Your task to perform on an android device: Go to eBay Image 0: 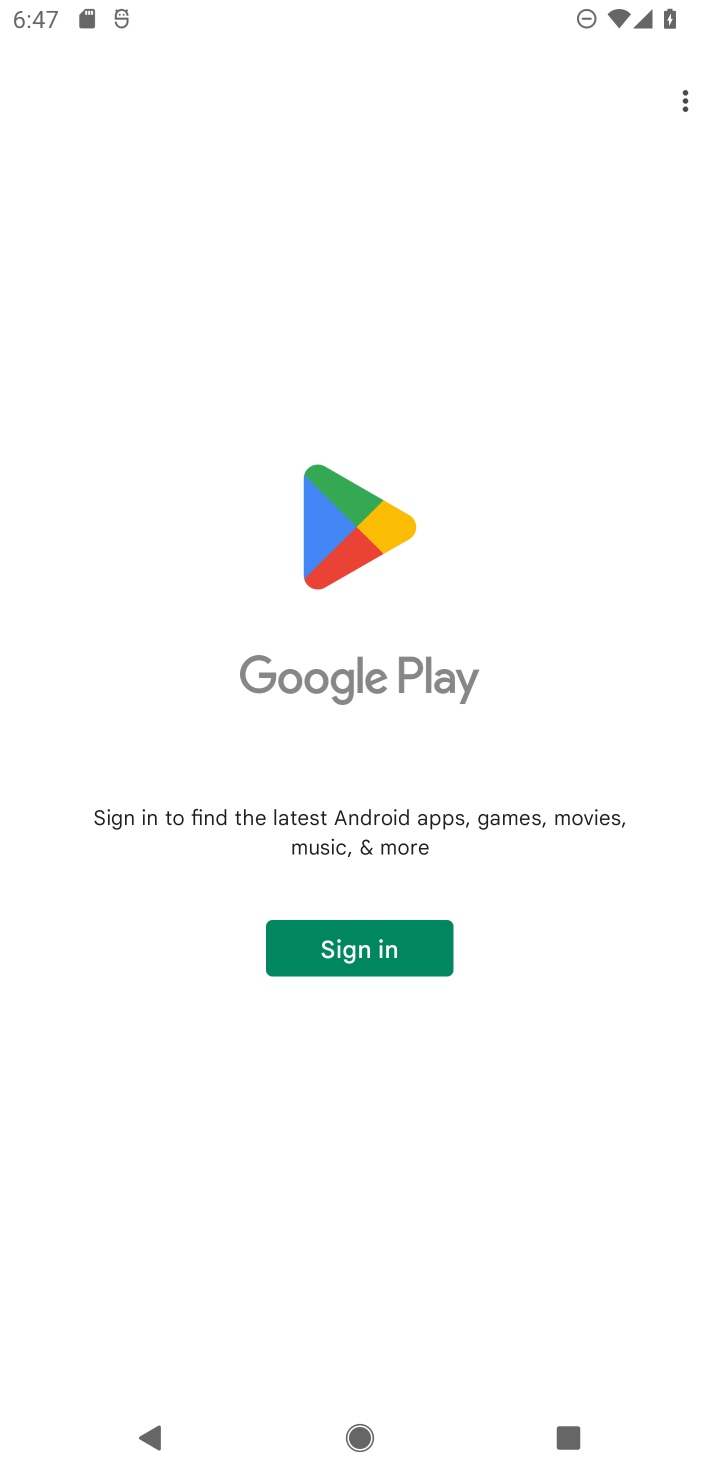
Step 0: press home button
Your task to perform on an android device: Go to eBay Image 1: 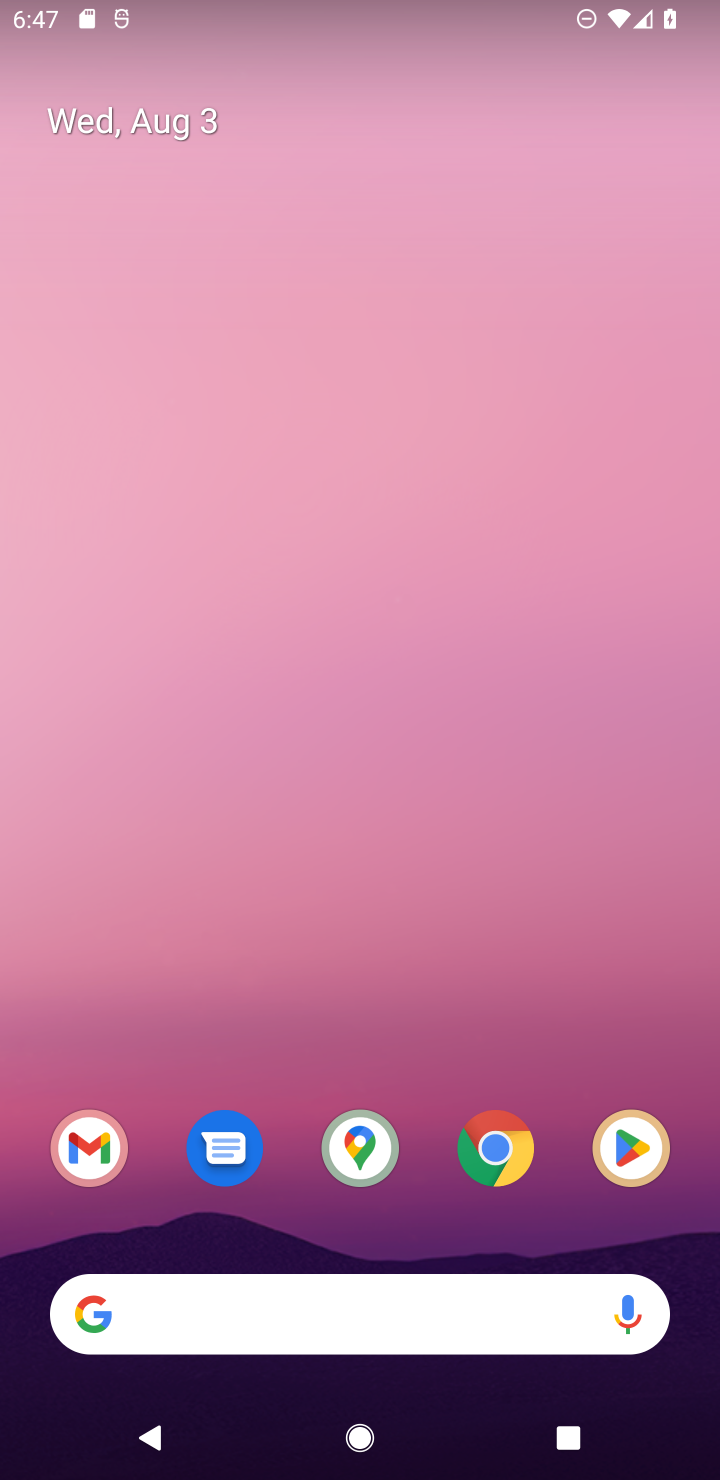
Step 1: drag from (287, 1041) to (305, 528)
Your task to perform on an android device: Go to eBay Image 2: 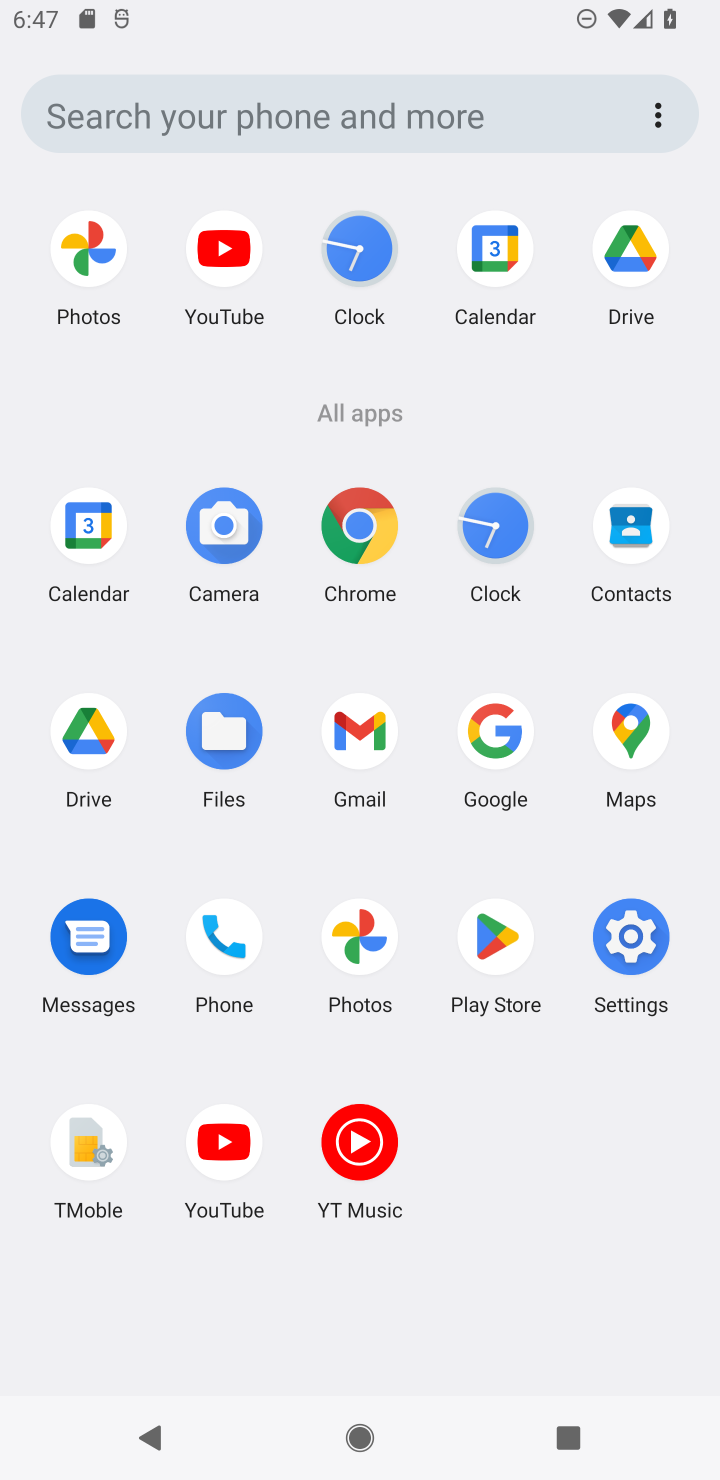
Step 2: click (354, 554)
Your task to perform on an android device: Go to eBay Image 3: 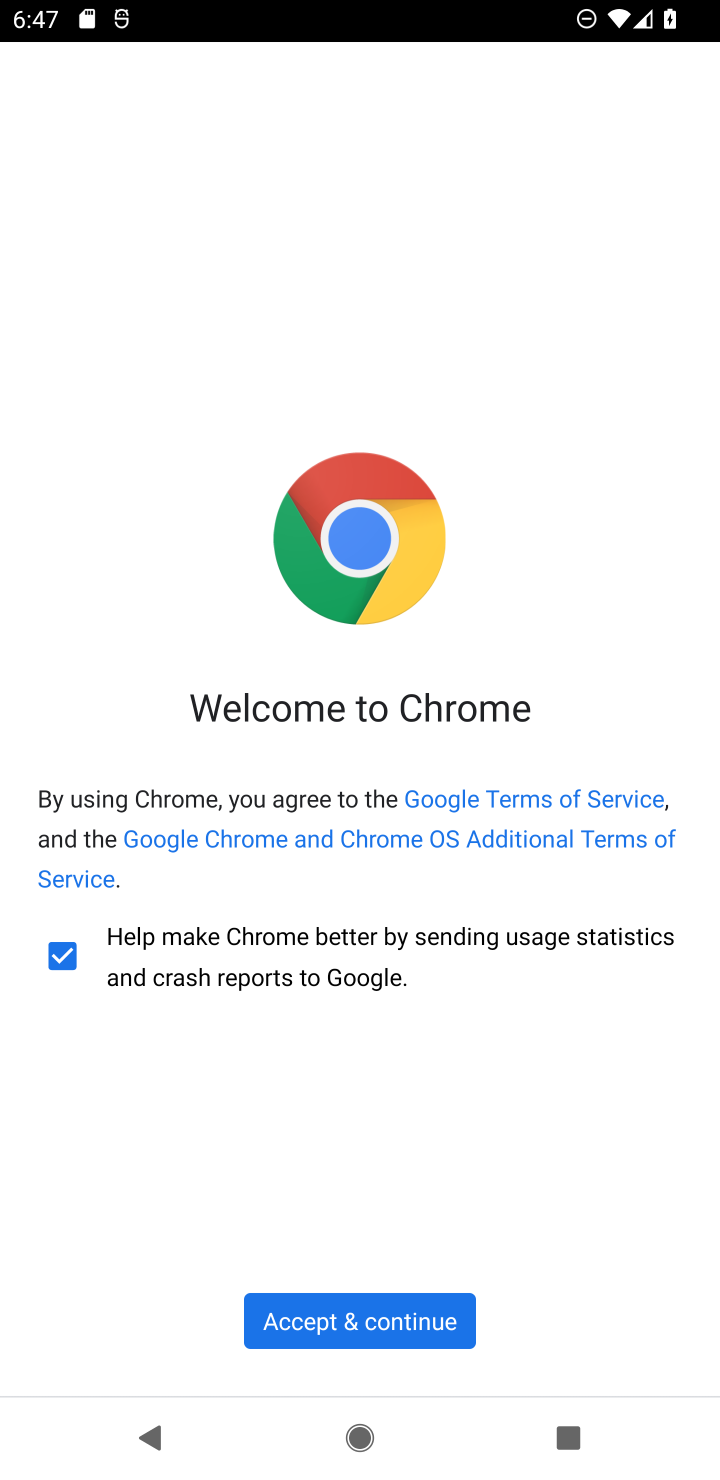
Step 3: click (343, 1311)
Your task to perform on an android device: Go to eBay Image 4: 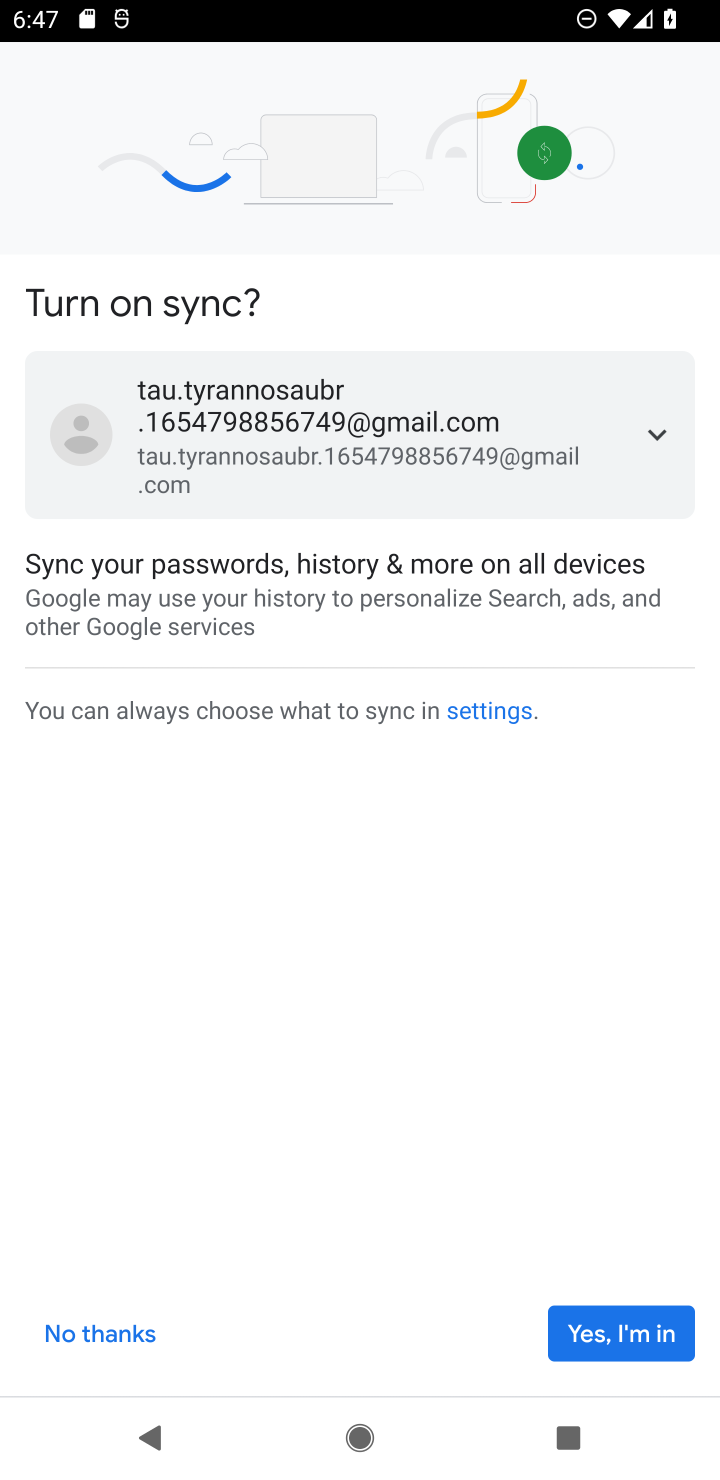
Step 4: click (605, 1320)
Your task to perform on an android device: Go to eBay Image 5: 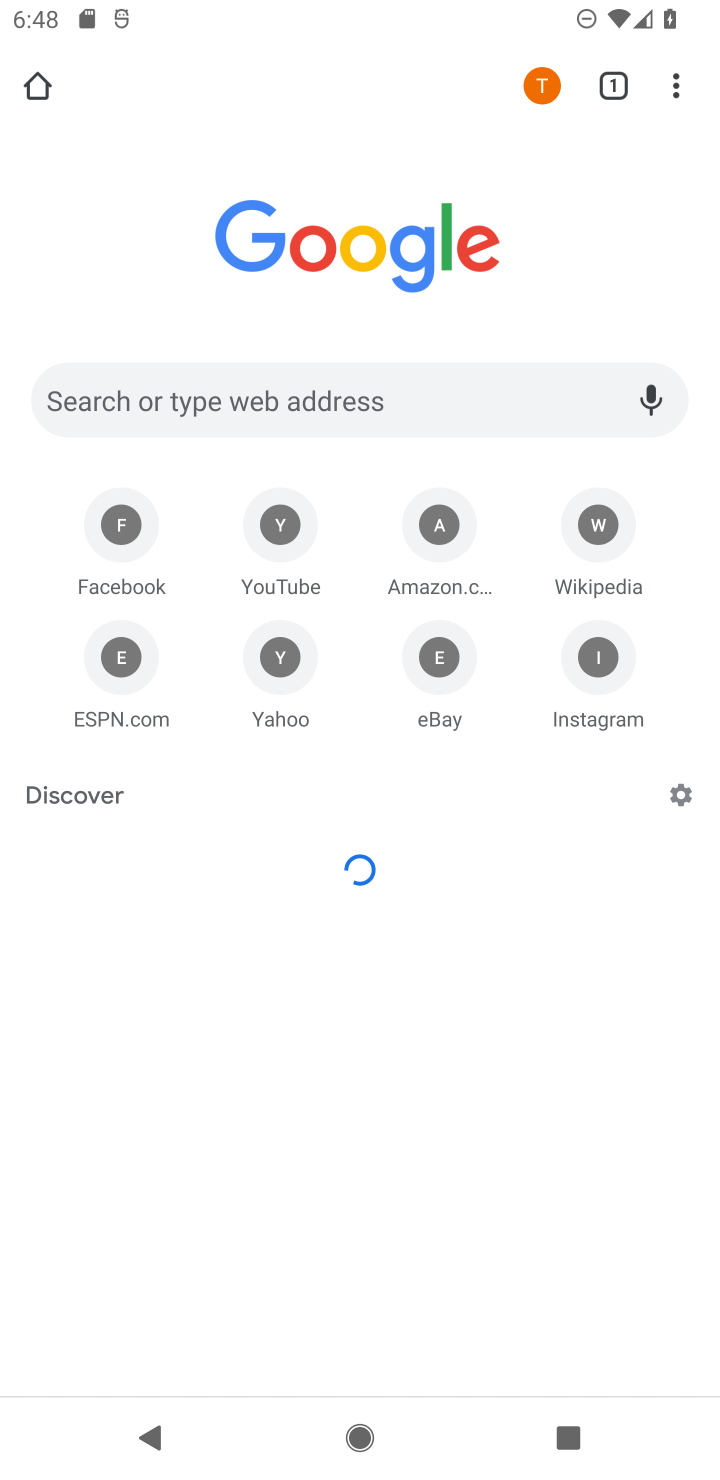
Step 5: click (433, 684)
Your task to perform on an android device: Go to eBay Image 6: 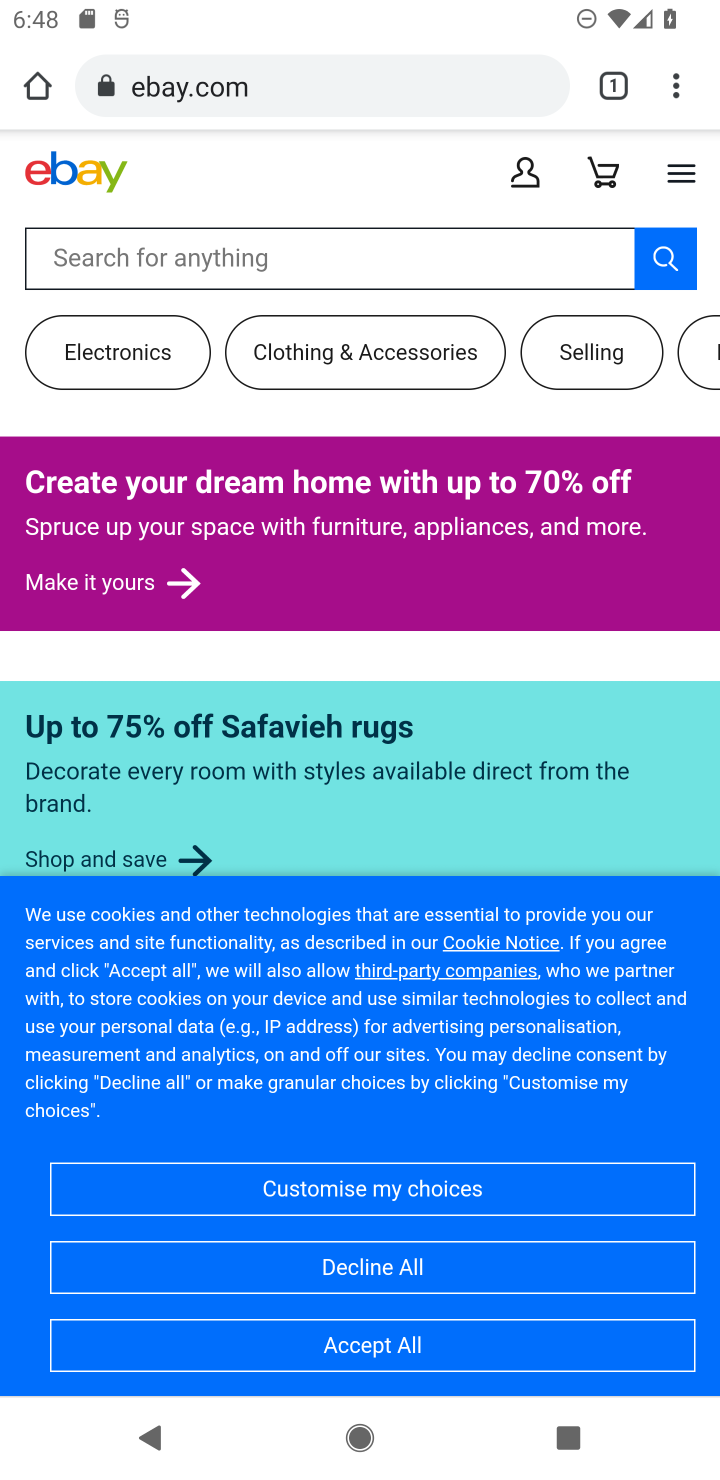
Step 6: task complete